Your task to perform on an android device: check storage Image 0: 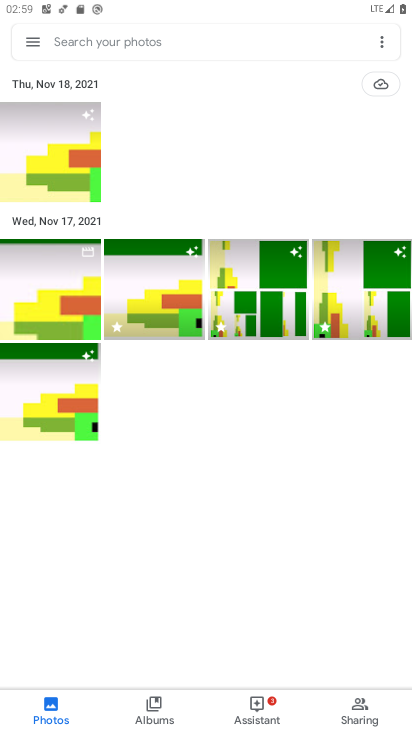
Step 0: press home button
Your task to perform on an android device: check storage Image 1: 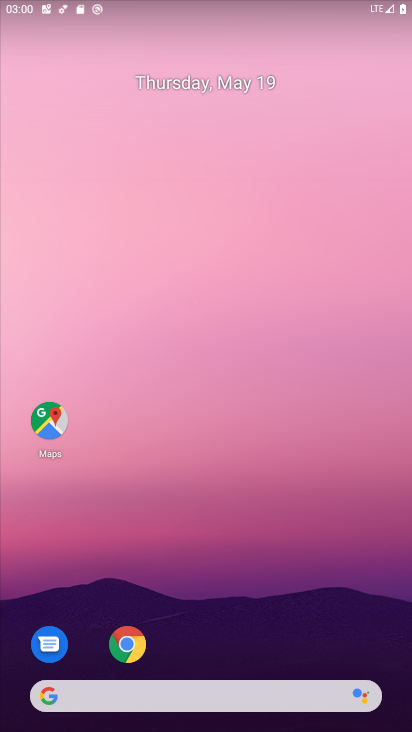
Step 1: drag from (263, 468) to (273, 137)
Your task to perform on an android device: check storage Image 2: 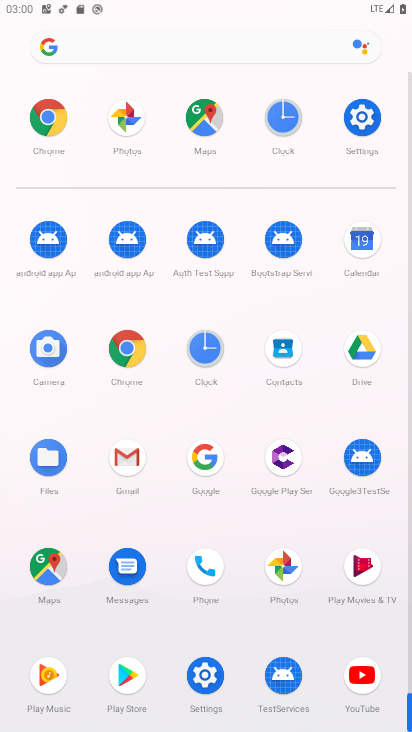
Step 2: click (355, 105)
Your task to perform on an android device: check storage Image 3: 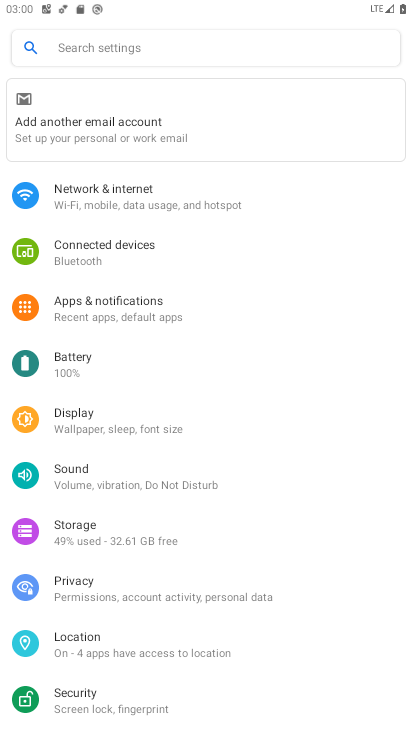
Step 3: click (105, 542)
Your task to perform on an android device: check storage Image 4: 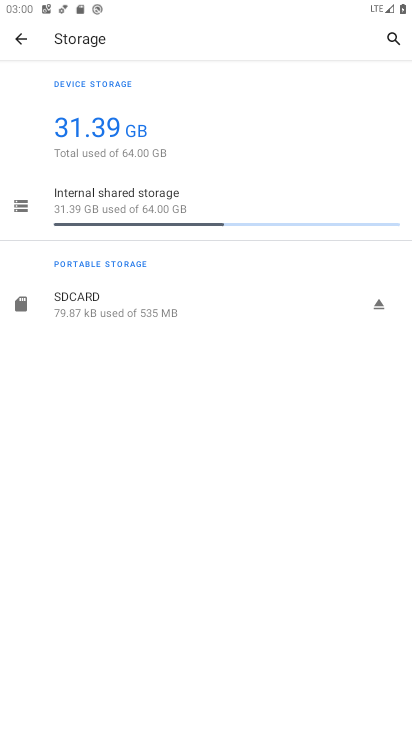
Step 4: task complete